Your task to perform on an android device: Go to eBay Image 0: 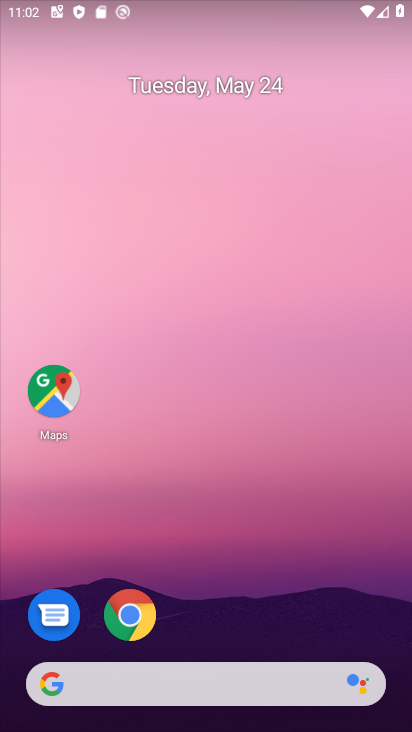
Step 0: click (128, 621)
Your task to perform on an android device: Go to eBay Image 1: 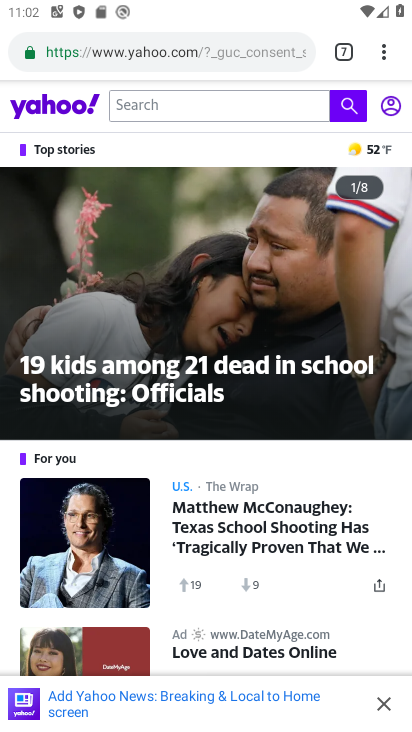
Step 1: click (347, 47)
Your task to perform on an android device: Go to eBay Image 2: 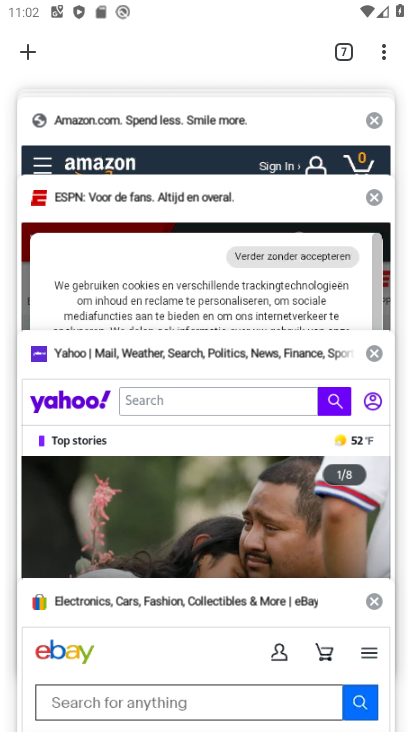
Step 2: click (146, 656)
Your task to perform on an android device: Go to eBay Image 3: 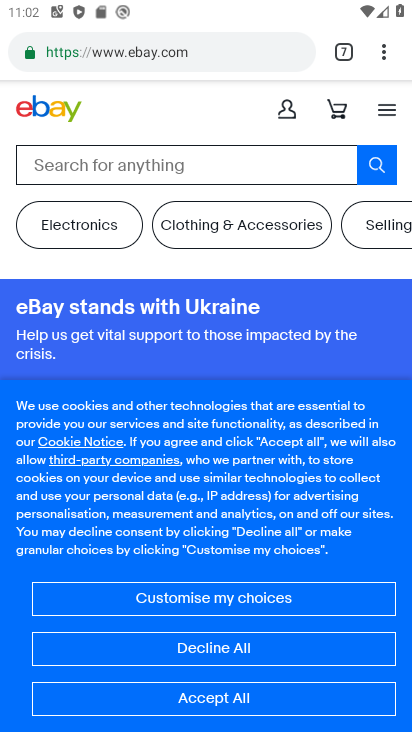
Step 3: task complete